Your task to perform on an android device: Open Google Maps and go to "Timeline" Image 0: 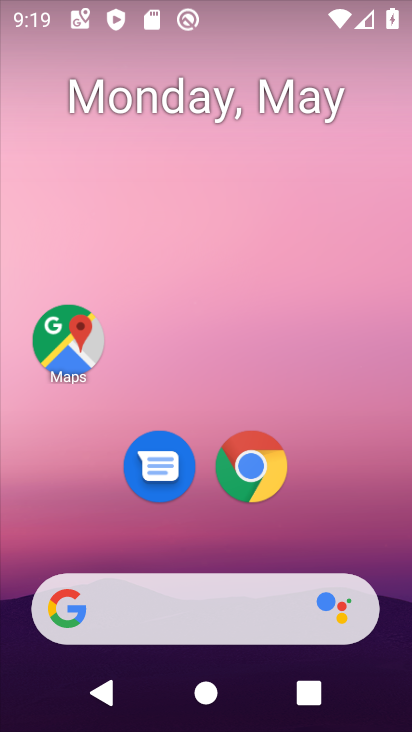
Step 0: press home button
Your task to perform on an android device: Open Google Maps and go to "Timeline" Image 1: 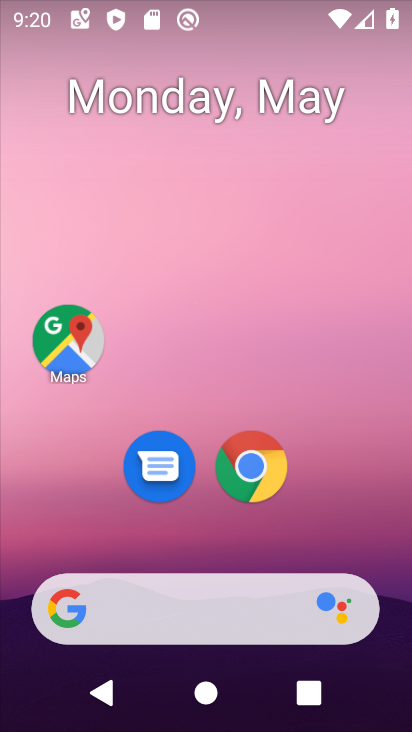
Step 1: click (28, 332)
Your task to perform on an android device: Open Google Maps and go to "Timeline" Image 2: 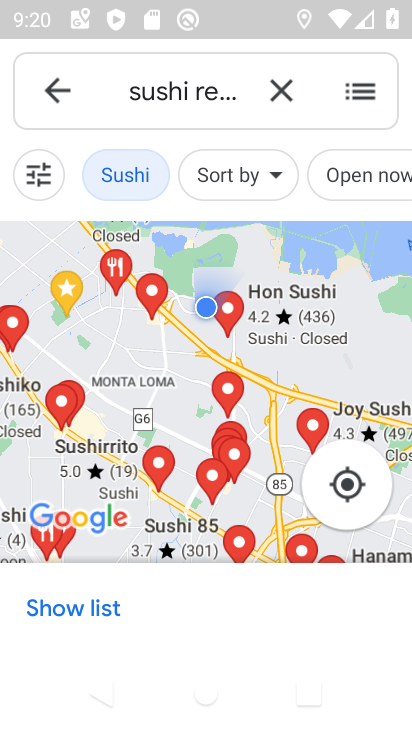
Step 2: click (56, 95)
Your task to perform on an android device: Open Google Maps and go to "Timeline" Image 3: 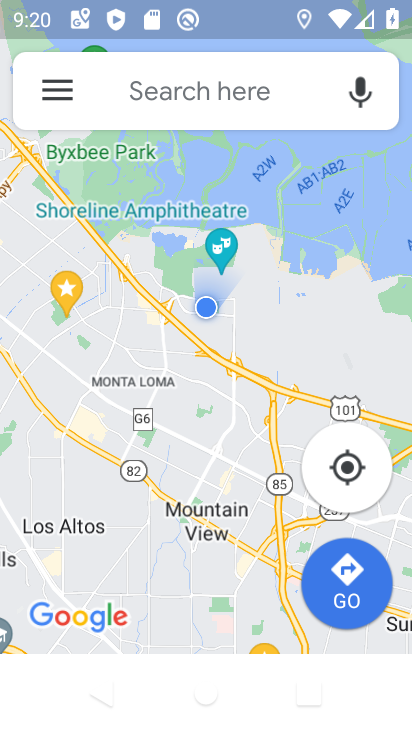
Step 3: click (59, 91)
Your task to perform on an android device: Open Google Maps and go to "Timeline" Image 4: 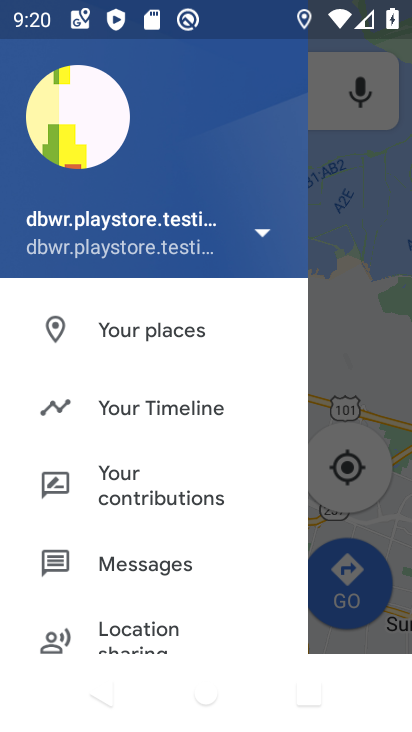
Step 4: click (167, 397)
Your task to perform on an android device: Open Google Maps and go to "Timeline" Image 5: 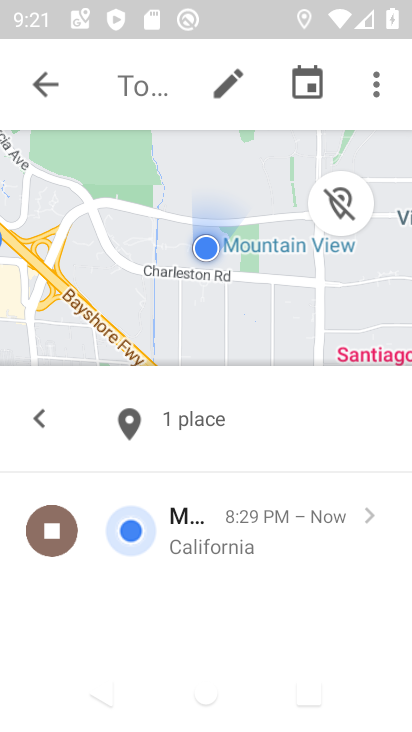
Step 5: task complete